Your task to perform on an android device: check google app version Image 0: 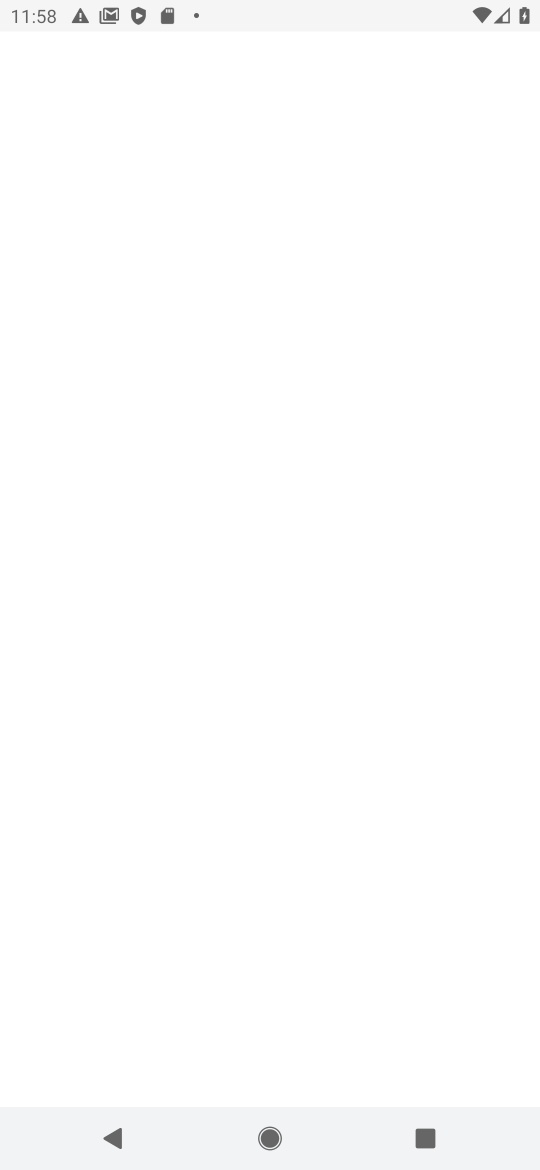
Step 0: press home button
Your task to perform on an android device: check google app version Image 1: 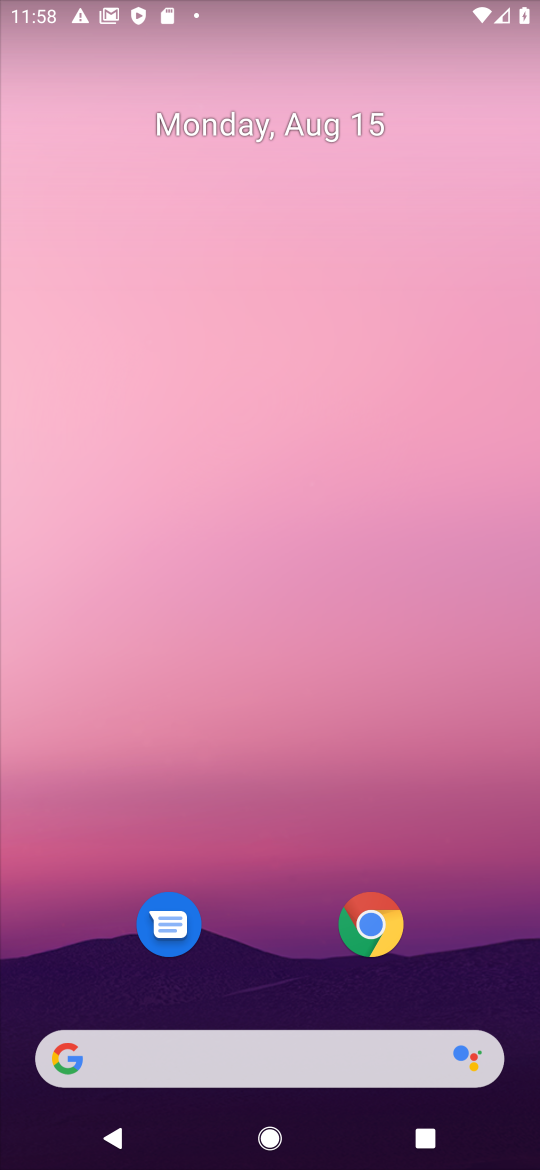
Step 1: drag from (256, 948) to (325, 148)
Your task to perform on an android device: check google app version Image 2: 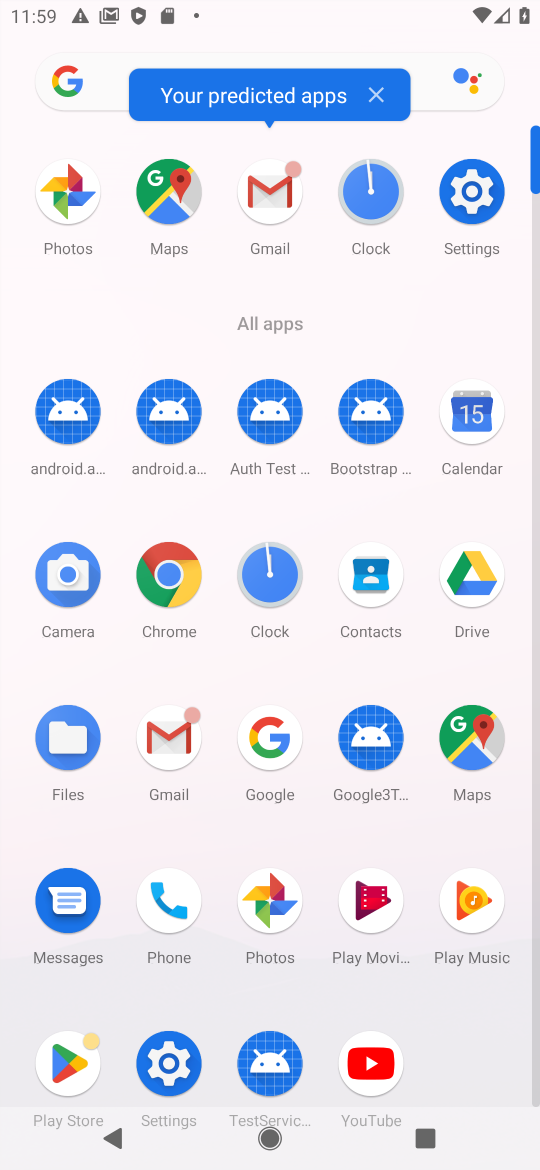
Step 2: drag from (231, 982) to (252, 346)
Your task to perform on an android device: check google app version Image 3: 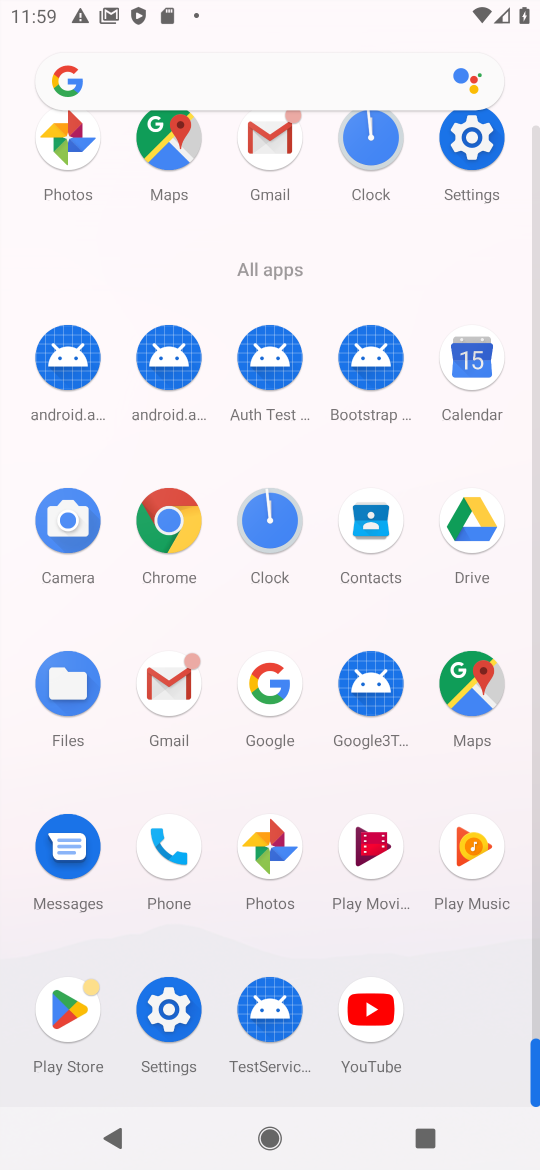
Step 3: click (273, 678)
Your task to perform on an android device: check google app version Image 4: 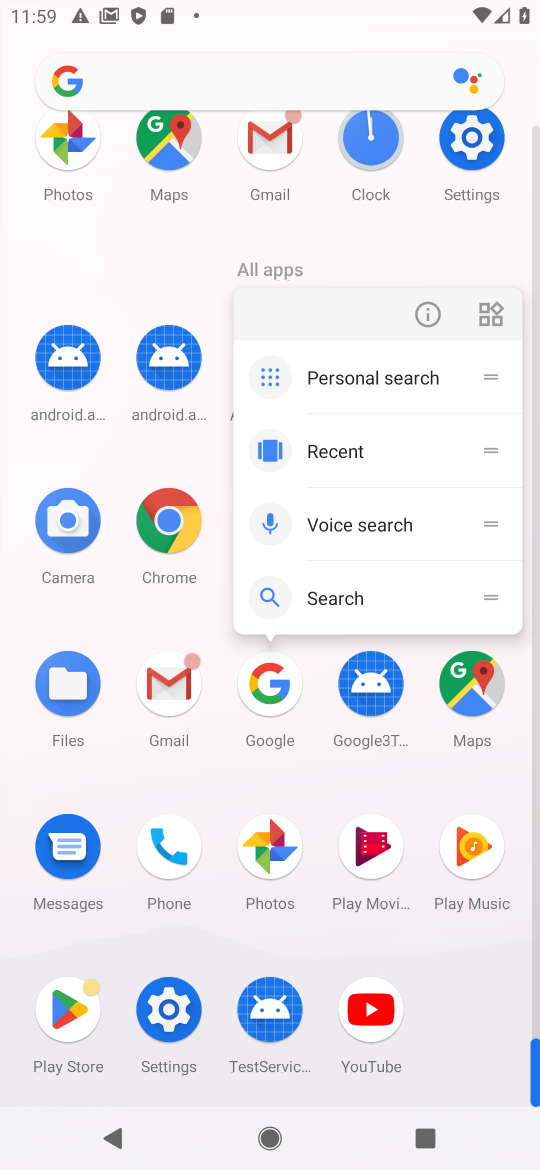
Step 4: click (429, 309)
Your task to perform on an android device: check google app version Image 5: 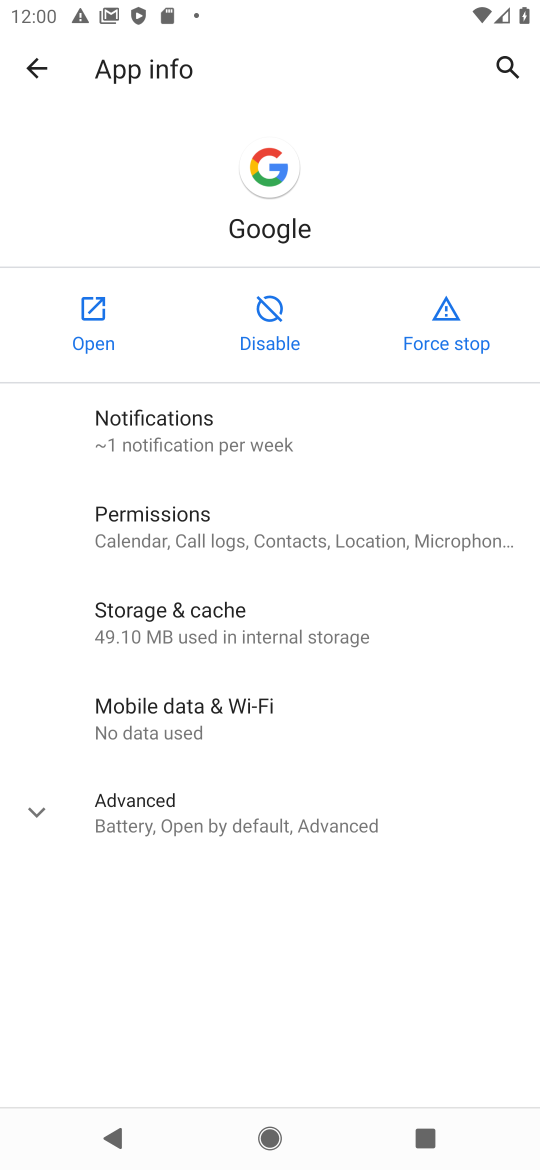
Step 5: click (247, 821)
Your task to perform on an android device: check google app version Image 6: 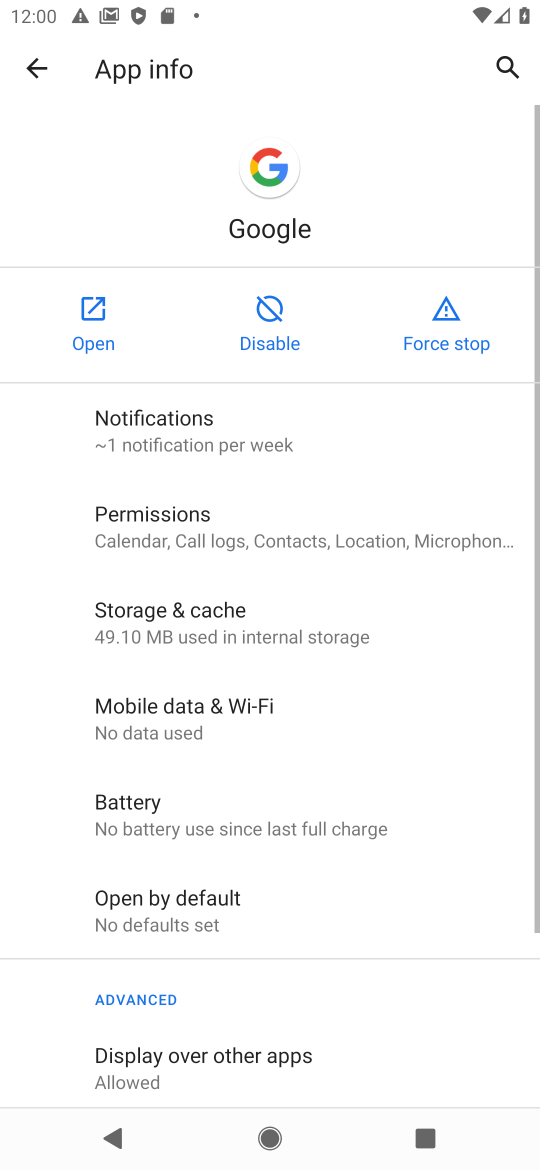
Step 6: drag from (310, 976) to (401, 72)
Your task to perform on an android device: check google app version Image 7: 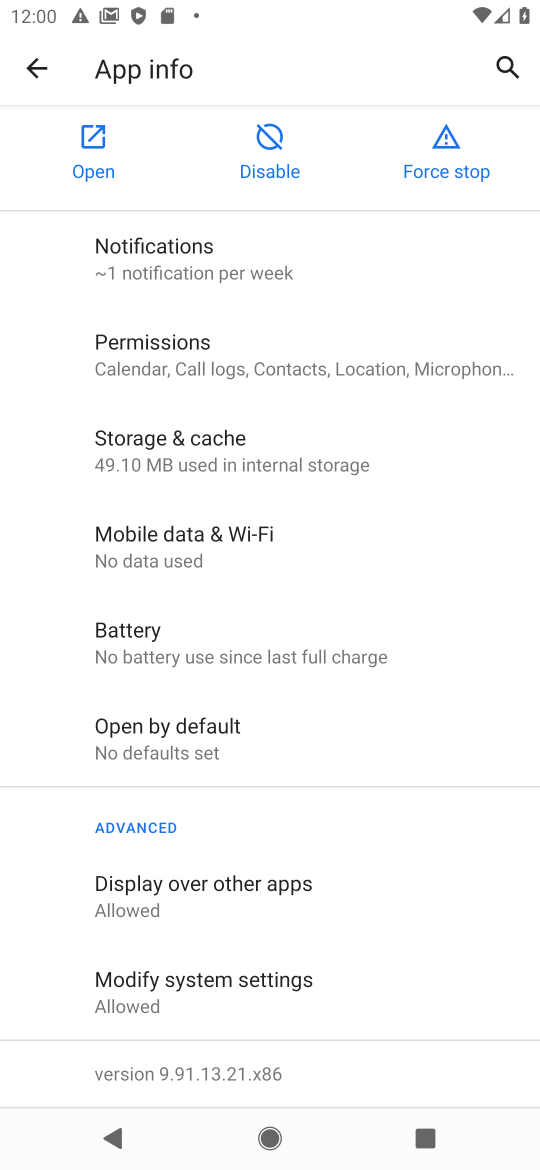
Step 7: click (285, 1076)
Your task to perform on an android device: check google app version Image 8: 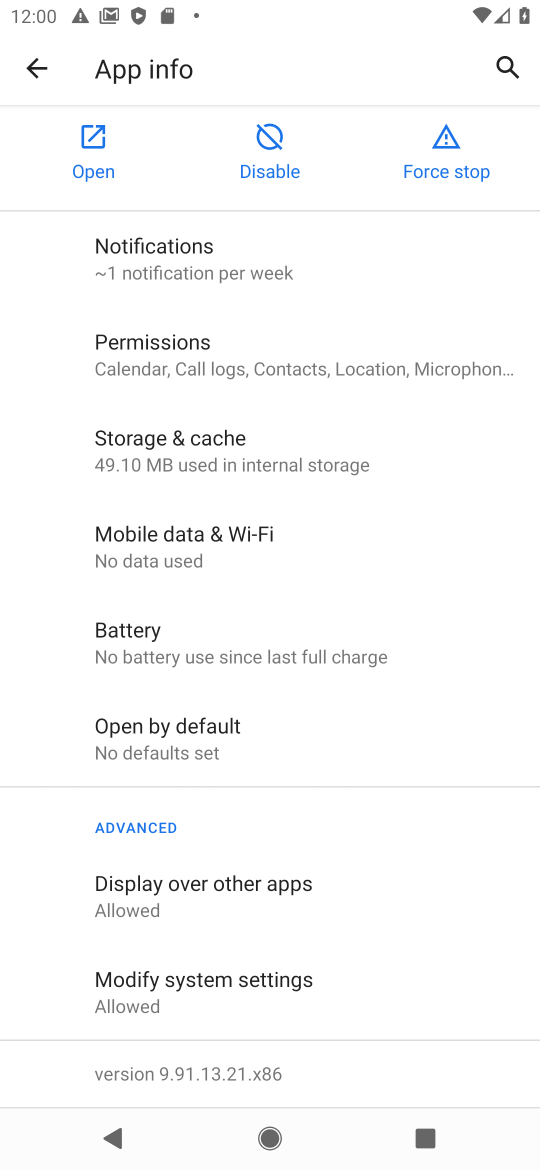
Step 8: task complete